Your task to perform on an android device: Go to settings Image 0: 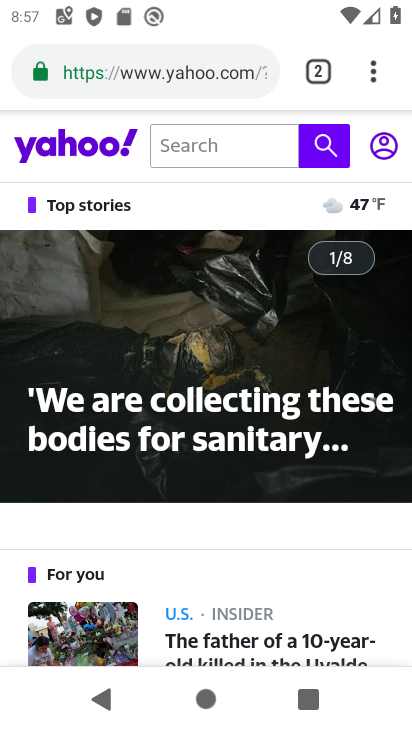
Step 0: press home button
Your task to perform on an android device: Go to settings Image 1: 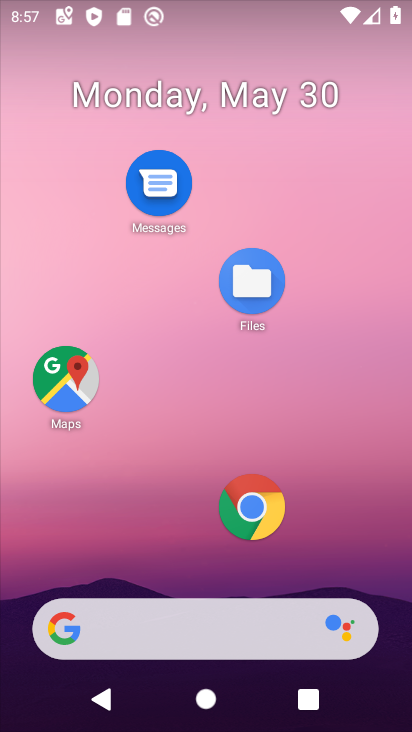
Step 1: drag from (150, 542) to (205, 109)
Your task to perform on an android device: Go to settings Image 2: 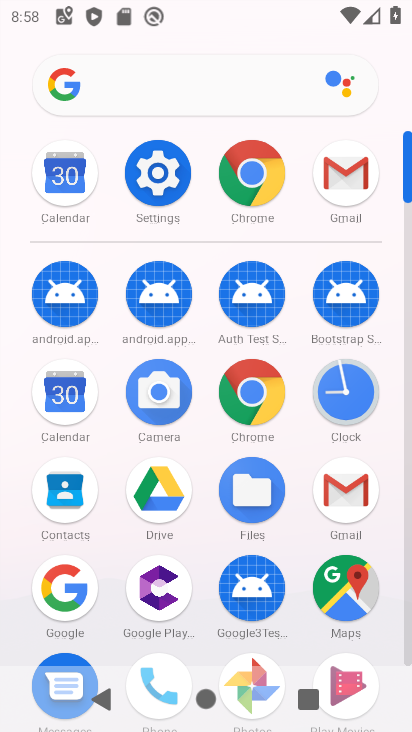
Step 2: click (160, 200)
Your task to perform on an android device: Go to settings Image 3: 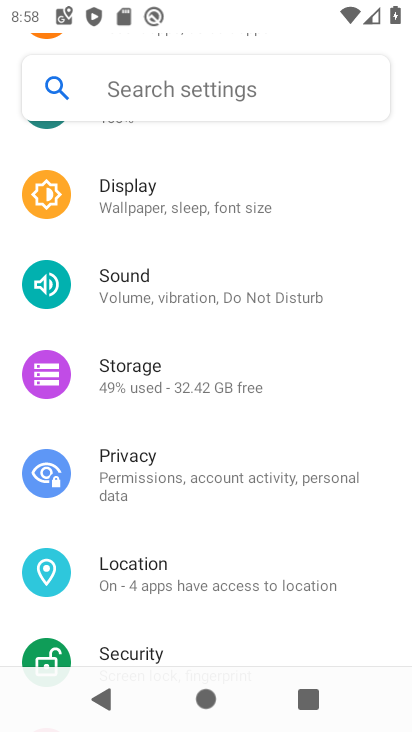
Step 3: task complete